Your task to perform on an android device: Open notification settings Image 0: 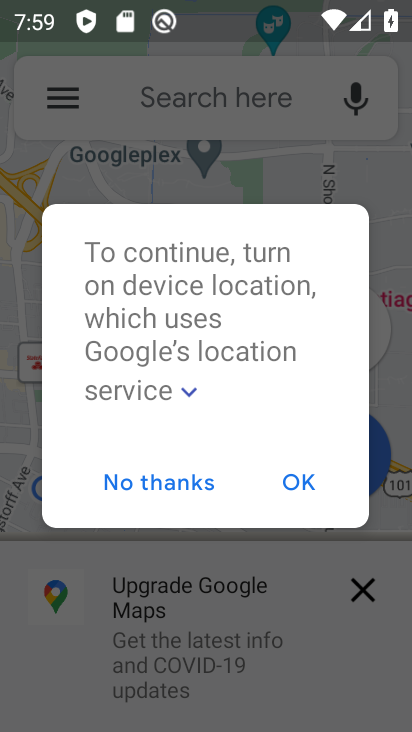
Step 0: press home button
Your task to perform on an android device: Open notification settings Image 1: 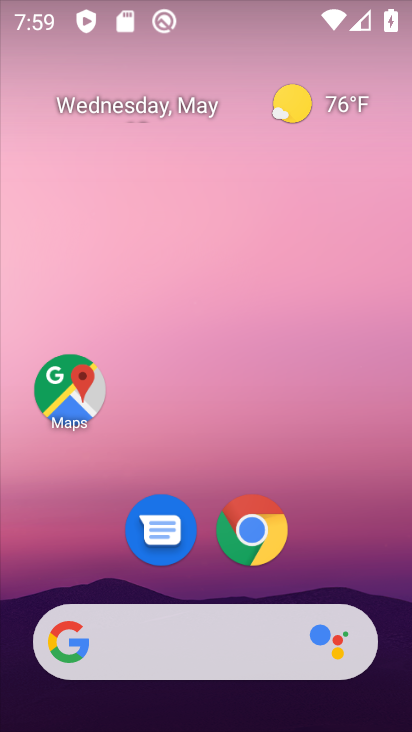
Step 1: drag from (343, 543) to (352, 181)
Your task to perform on an android device: Open notification settings Image 2: 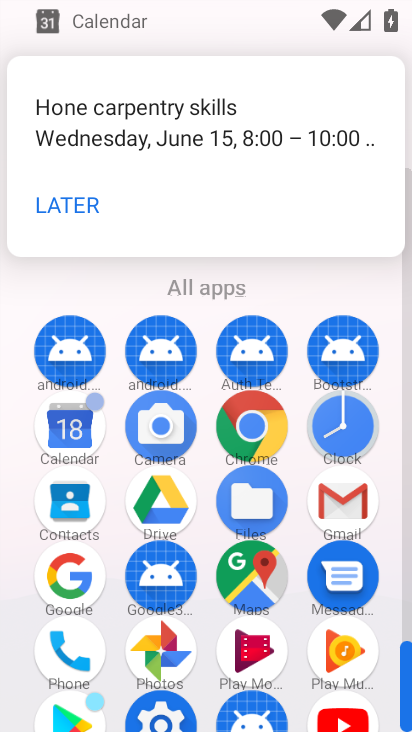
Step 2: click (80, 202)
Your task to perform on an android device: Open notification settings Image 3: 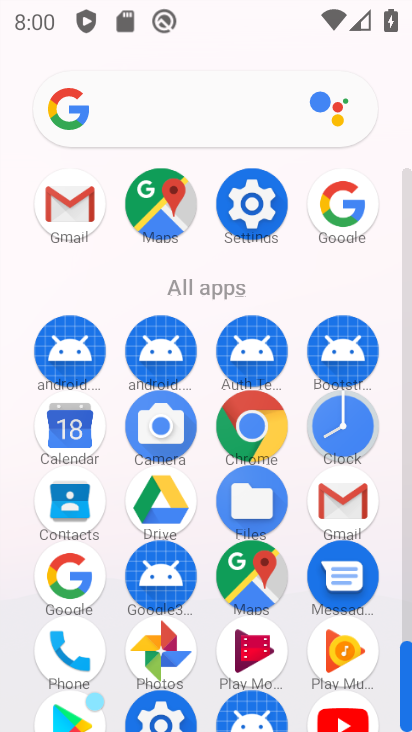
Step 3: click (251, 199)
Your task to perform on an android device: Open notification settings Image 4: 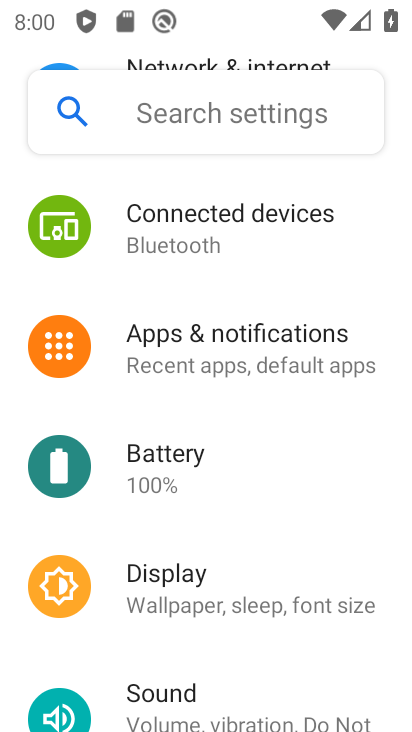
Step 4: click (227, 332)
Your task to perform on an android device: Open notification settings Image 5: 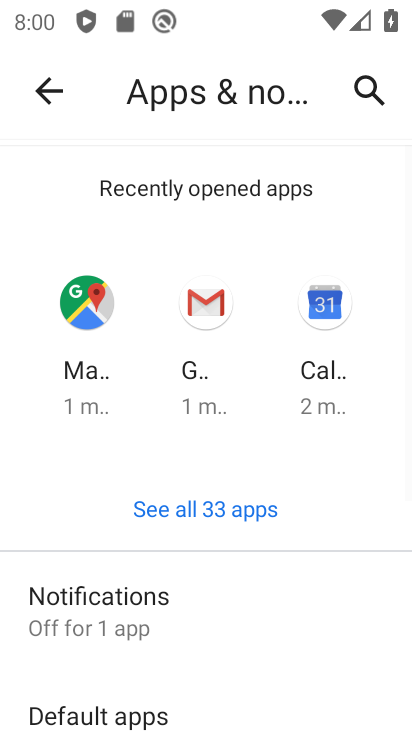
Step 5: click (131, 610)
Your task to perform on an android device: Open notification settings Image 6: 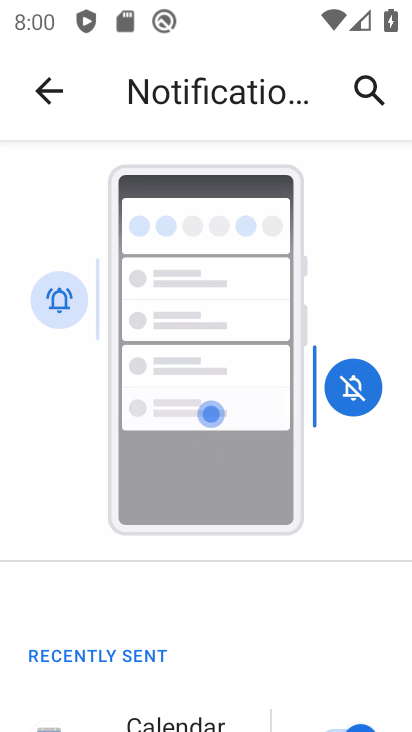
Step 6: task complete